Your task to perform on an android device: Go to Reddit.com Image 0: 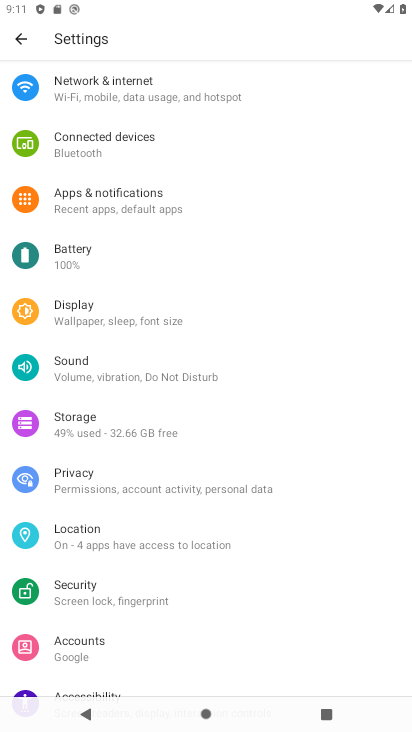
Step 0: press home button
Your task to perform on an android device: Go to Reddit.com Image 1: 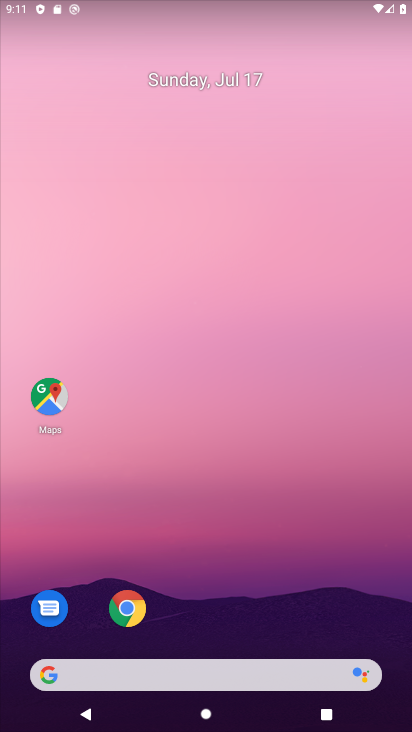
Step 1: drag from (275, 568) to (241, 9)
Your task to perform on an android device: Go to Reddit.com Image 2: 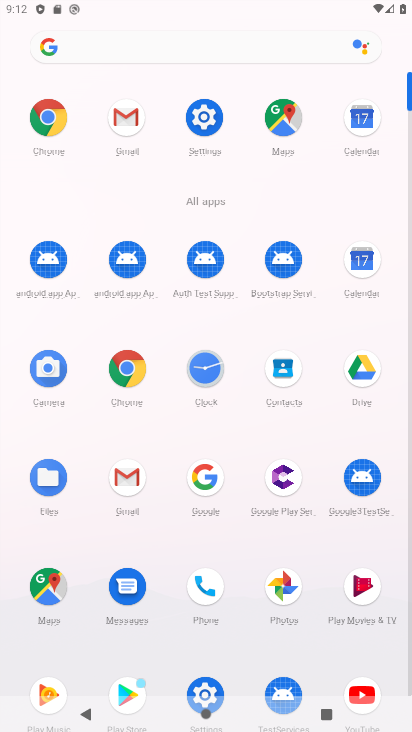
Step 2: click (44, 121)
Your task to perform on an android device: Go to Reddit.com Image 3: 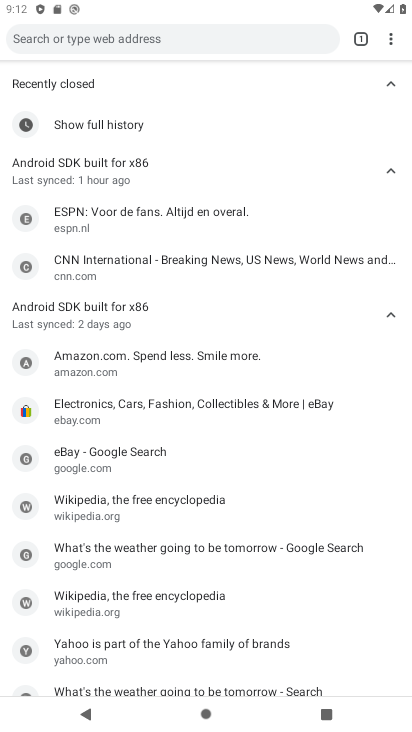
Step 3: press back button
Your task to perform on an android device: Go to Reddit.com Image 4: 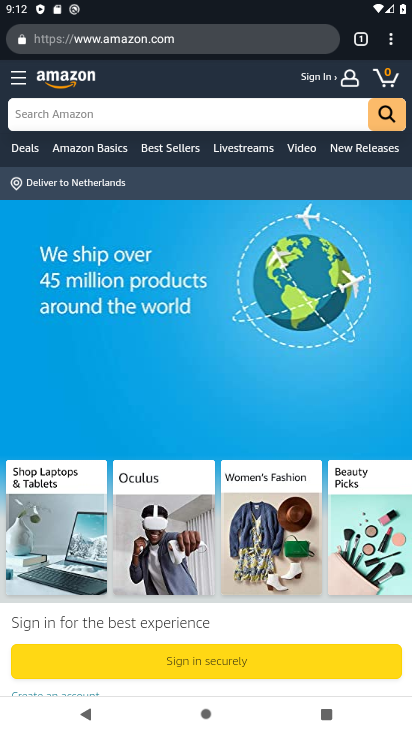
Step 4: press back button
Your task to perform on an android device: Go to Reddit.com Image 5: 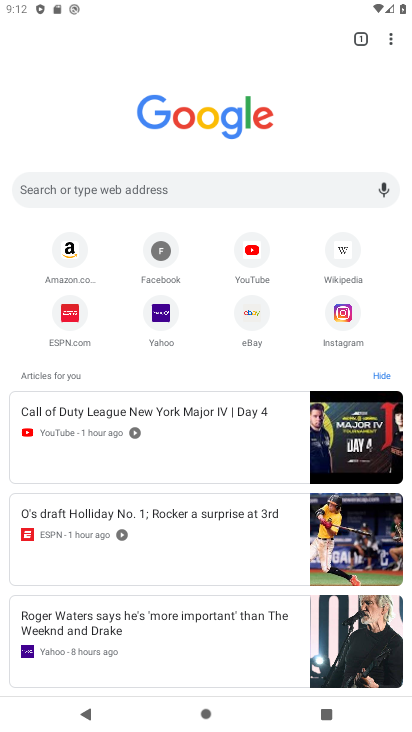
Step 5: click (218, 187)
Your task to perform on an android device: Go to Reddit.com Image 6: 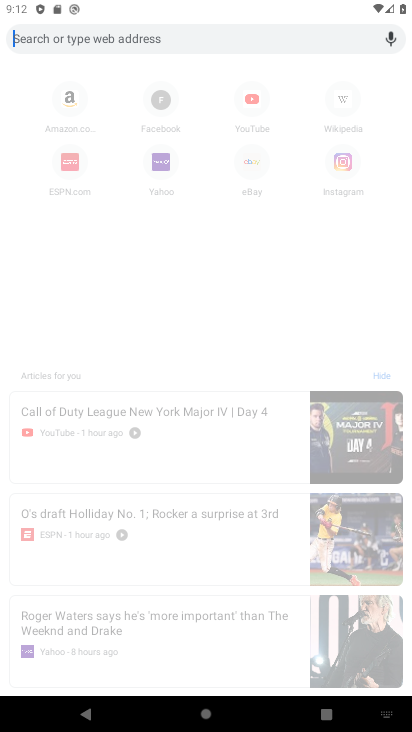
Step 6: type "Reddit.com"
Your task to perform on an android device: Go to Reddit.com Image 7: 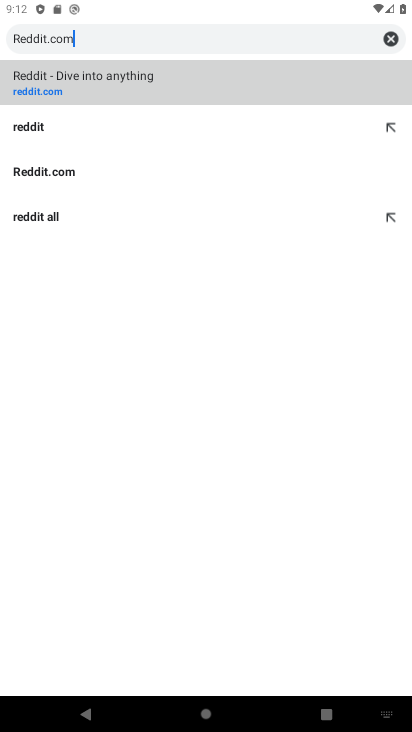
Step 7: press enter
Your task to perform on an android device: Go to Reddit.com Image 8: 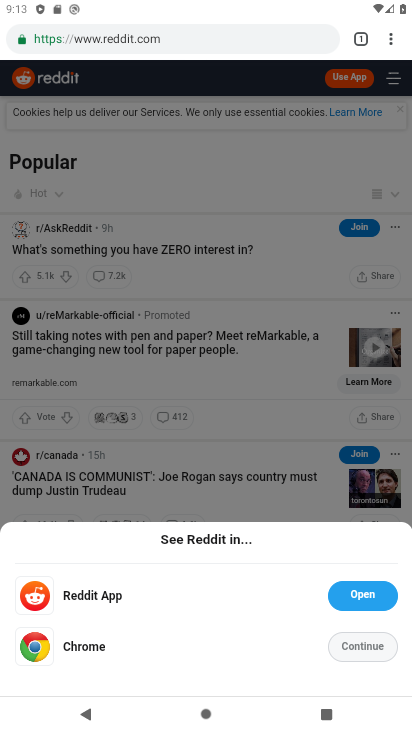
Step 8: task complete